Your task to perform on an android device: turn off translation in the chrome app Image 0: 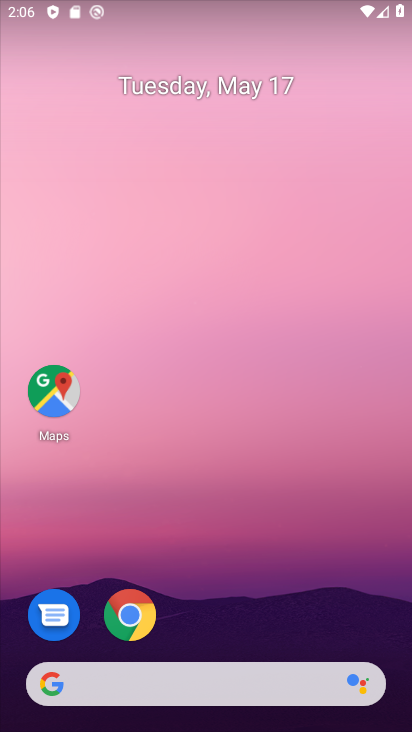
Step 0: click (133, 614)
Your task to perform on an android device: turn off translation in the chrome app Image 1: 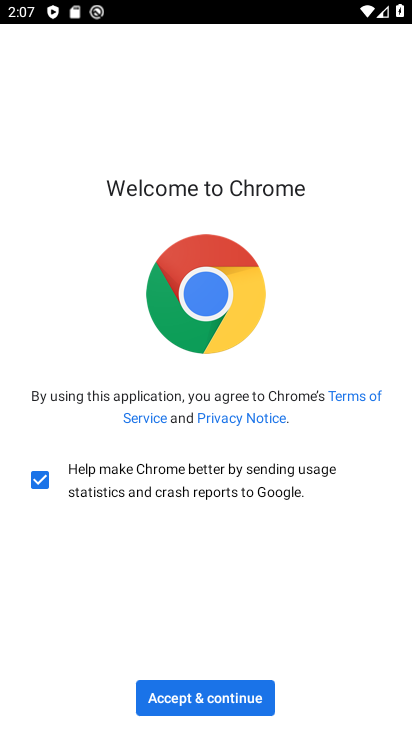
Step 1: click (219, 694)
Your task to perform on an android device: turn off translation in the chrome app Image 2: 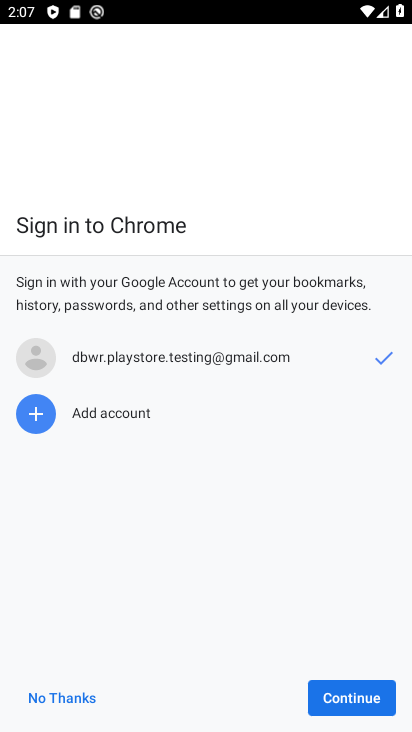
Step 2: click (347, 701)
Your task to perform on an android device: turn off translation in the chrome app Image 3: 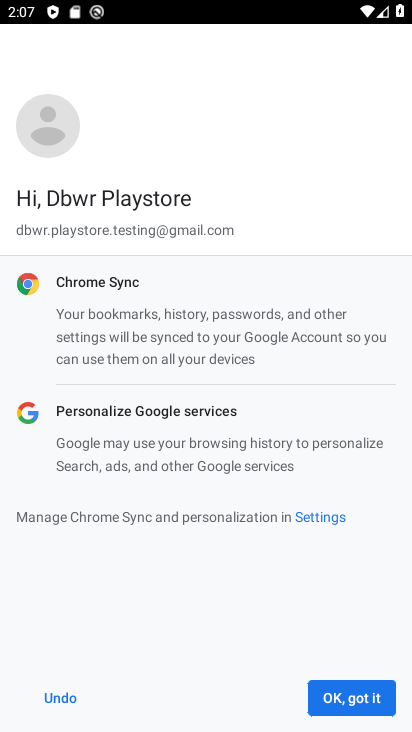
Step 3: click (369, 697)
Your task to perform on an android device: turn off translation in the chrome app Image 4: 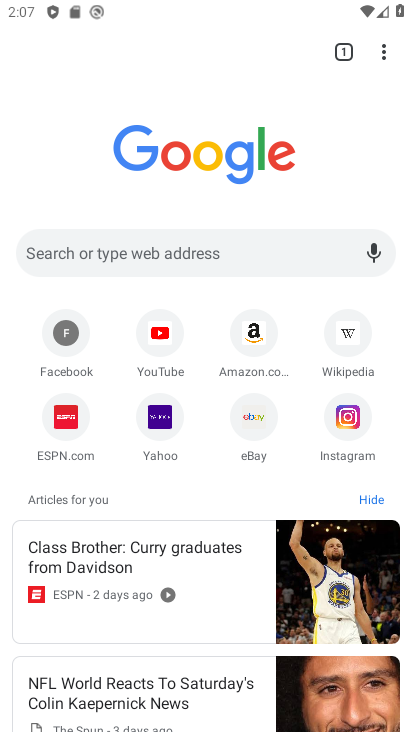
Step 4: click (384, 56)
Your task to perform on an android device: turn off translation in the chrome app Image 5: 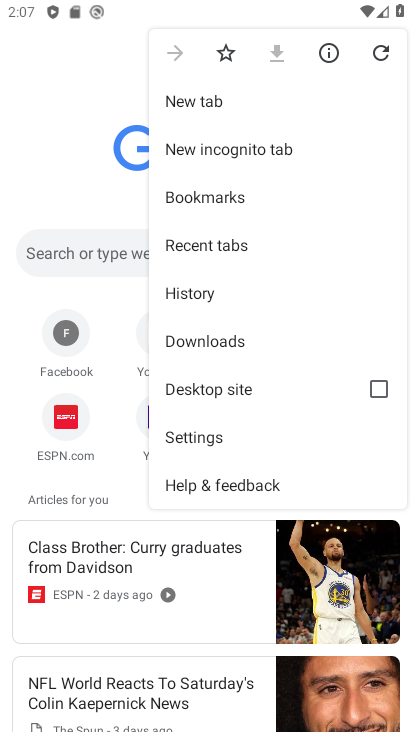
Step 5: click (206, 433)
Your task to perform on an android device: turn off translation in the chrome app Image 6: 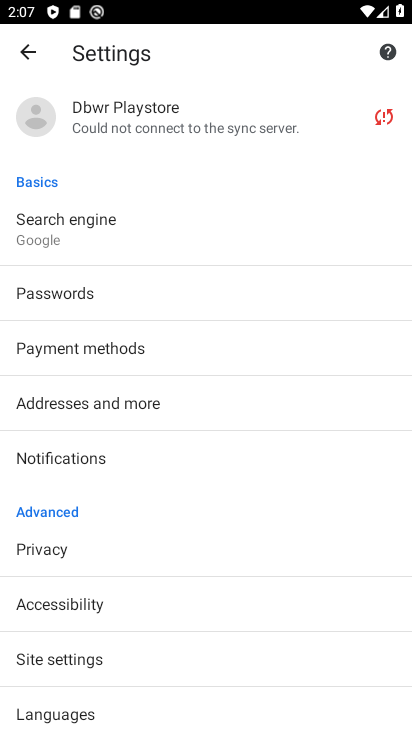
Step 6: drag from (164, 646) to (168, 331)
Your task to perform on an android device: turn off translation in the chrome app Image 7: 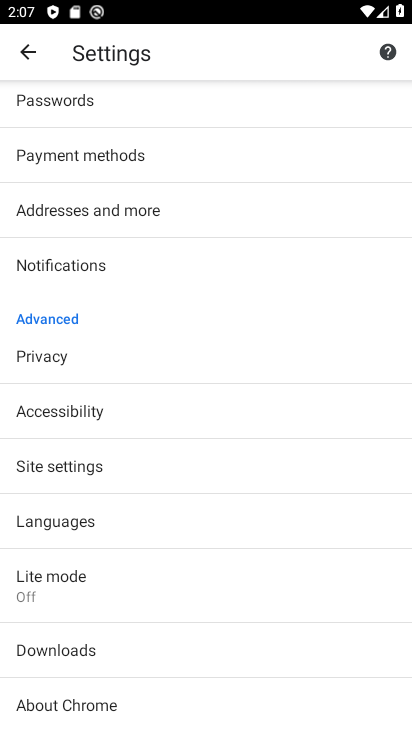
Step 7: click (71, 512)
Your task to perform on an android device: turn off translation in the chrome app Image 8: 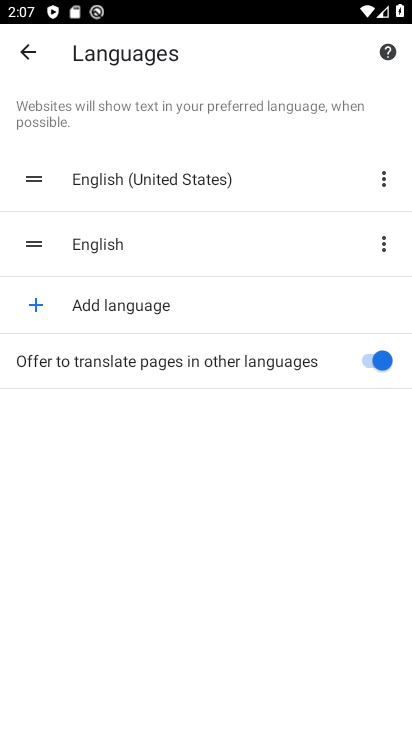
Step 8: click (366, 354)
Your task to perform on an android device: turn off translation in the chrome app Image 9: 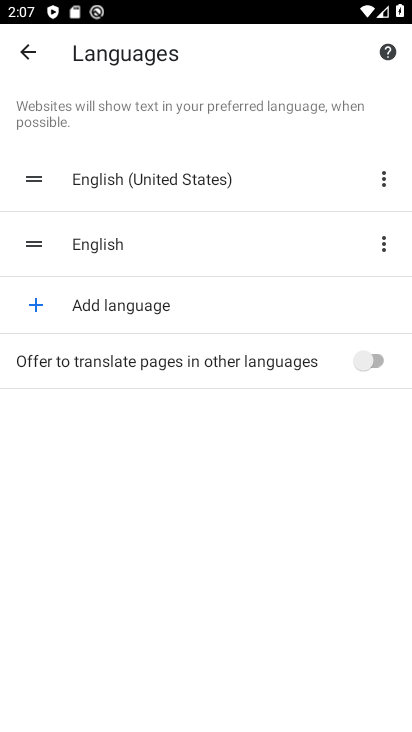
Step 9: task complete